Your task to perform on an android device: open chrome and create a bookmark for the current page Image 0: 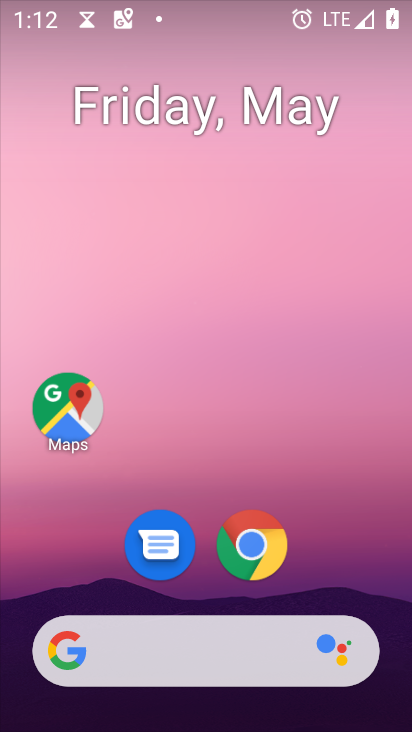
Step 0: click (256, 557)
Your task to perform on an android device: open chrome and create a bookmark for the current page Image 1: 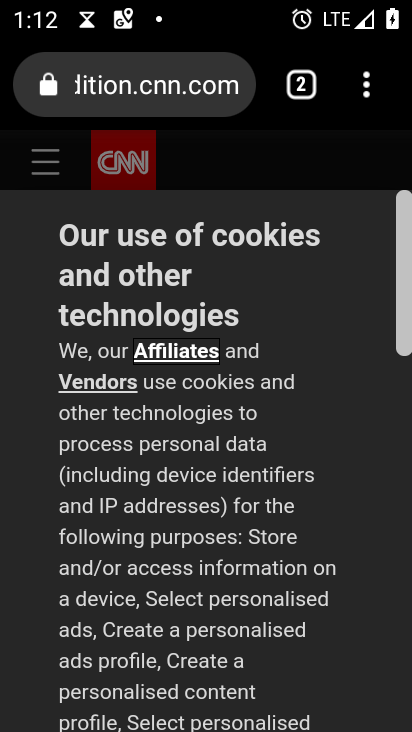
Step 1: click (372, 88)
Your task to perform on an android device: open chrome and create a bookmark for the current page Image 2: 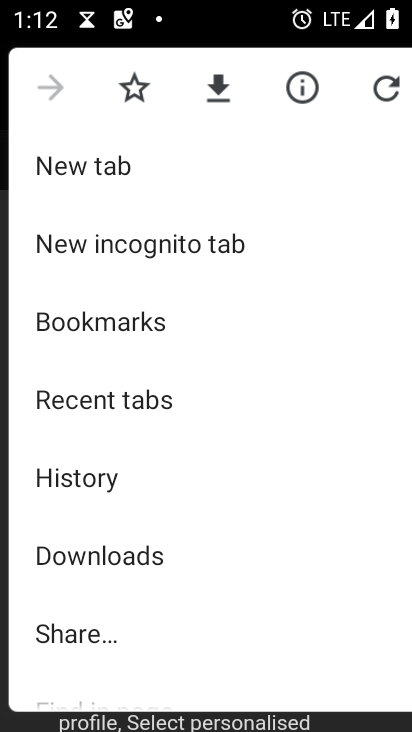
Step 2: click (130, 94)
Your task to perform on an android device: open chrome and create a bookmark for the current page Image 3: 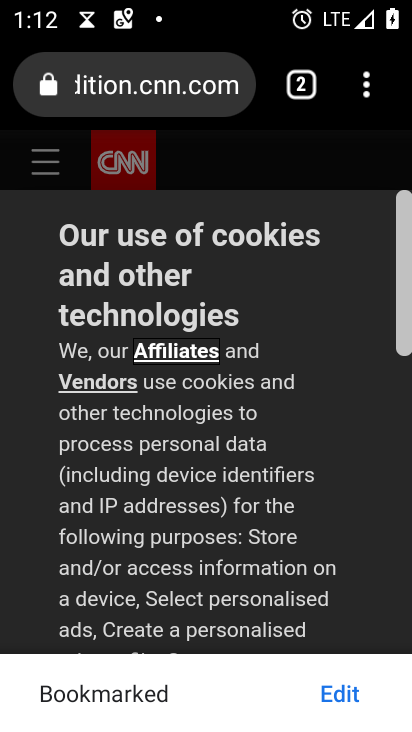
Step 3: task complete